Your task to perform on an android device: What's the time in New York? Image 0: 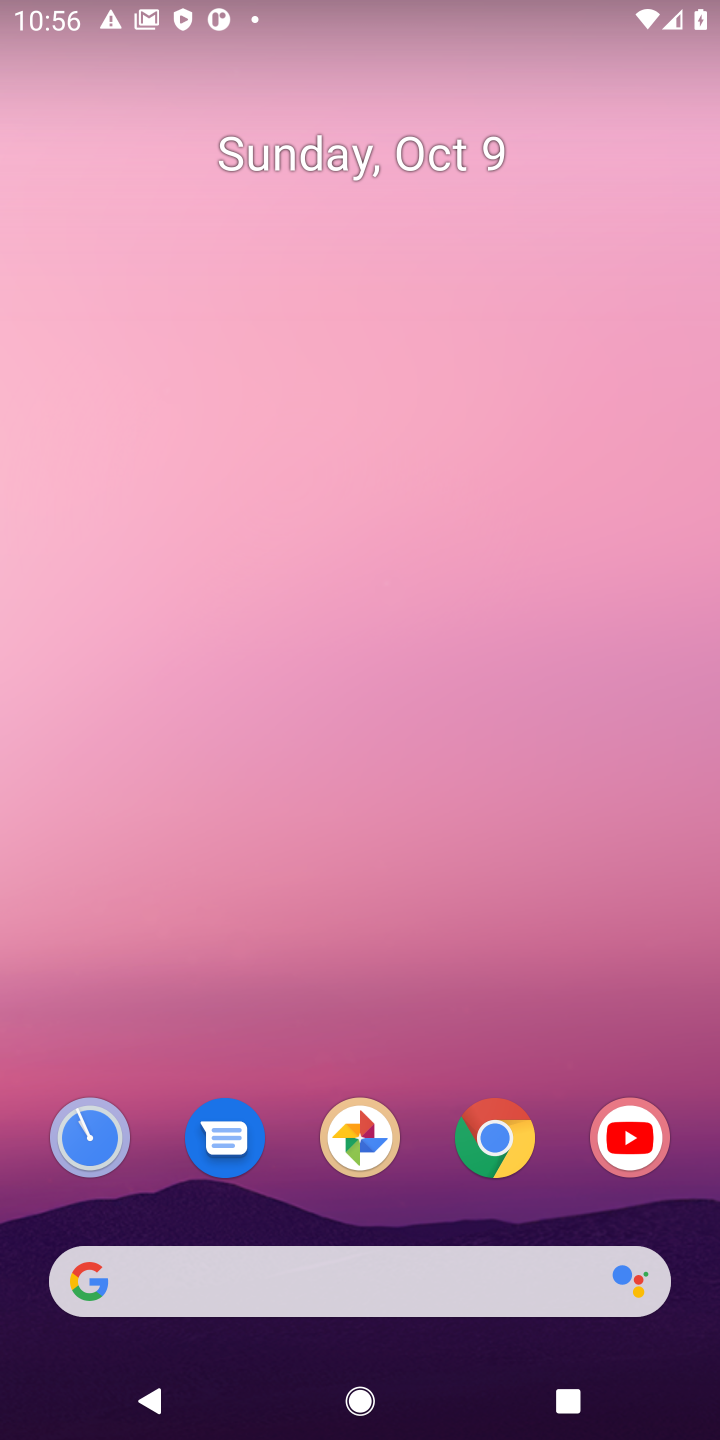
Step 0: click (493, 1156)
Your task to perform on an android device: What's the time in New York? Image 1: 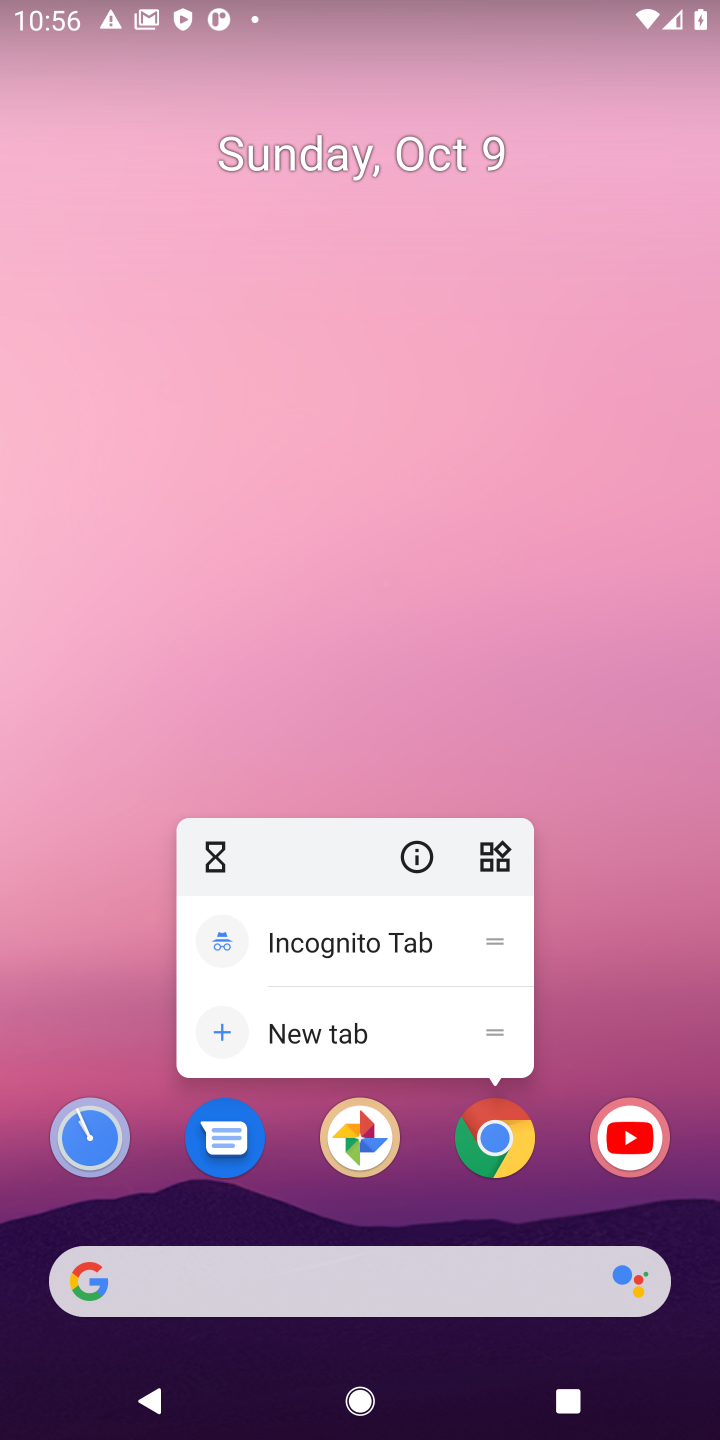
Step 1: click (493, 1156)
Your task to perform on an android device: What's the time in New York? Image 2: 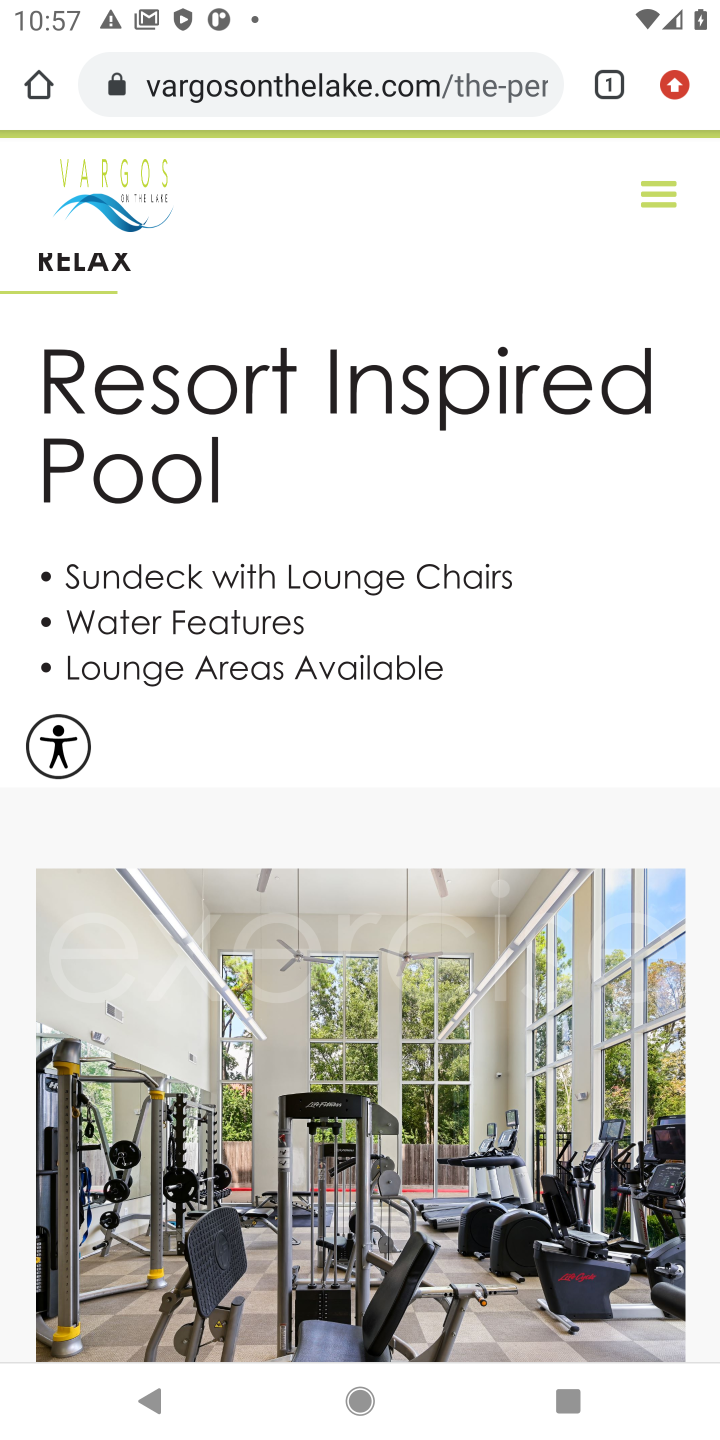
Step 2: click (324, 85)
Your task to perform on an android device: What's the time in New York? Image 3: 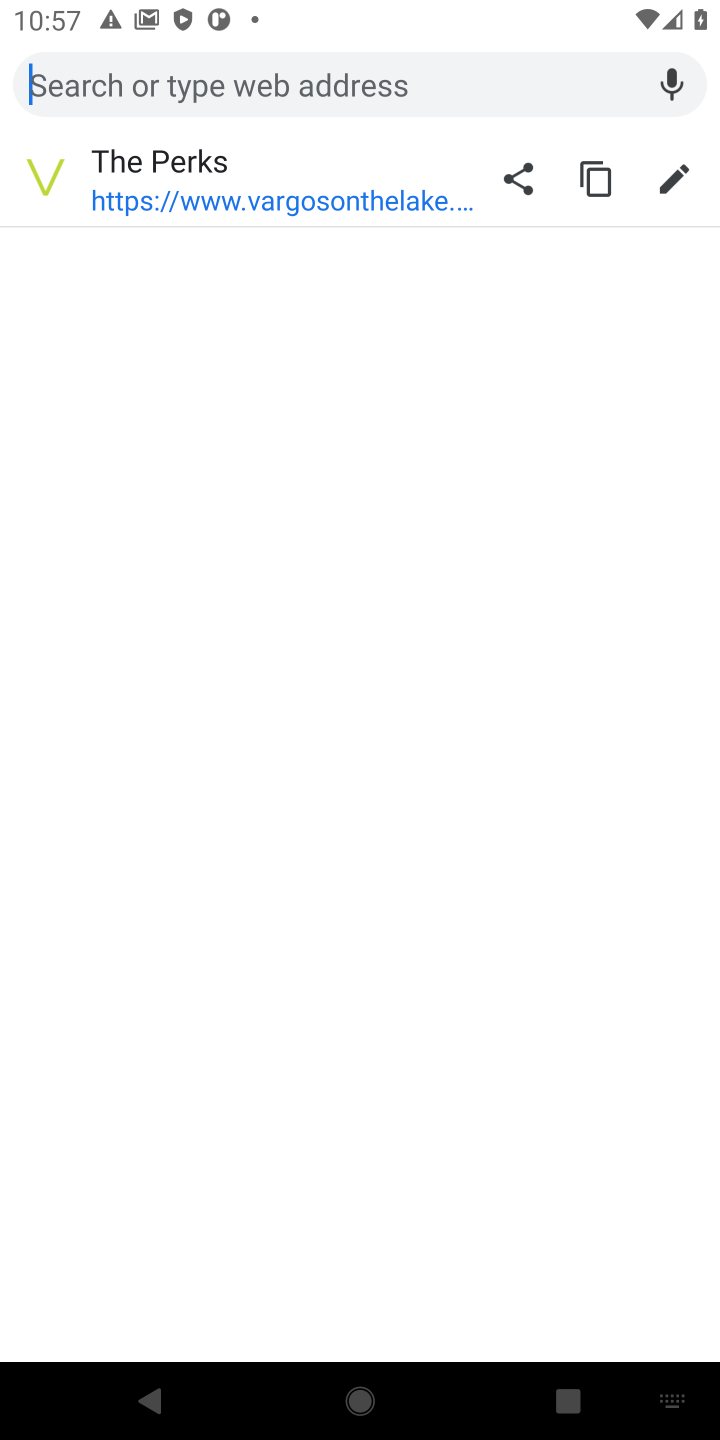
Step 3: type "What's the time in New York?"
Your task to perform on an android device: What's the time in New York? Image 4: 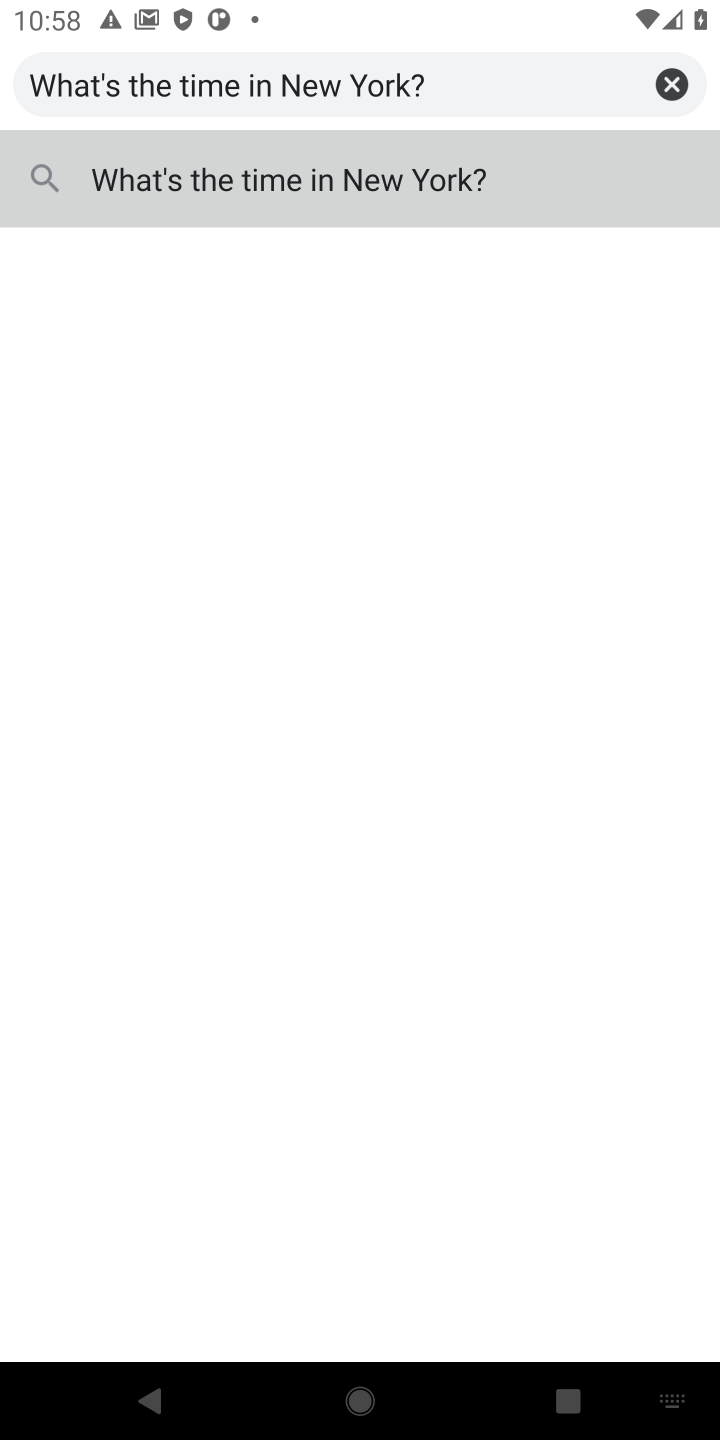
Step 4: press enter
Your task to perform on an android device: What's the time in New York? Image 5: 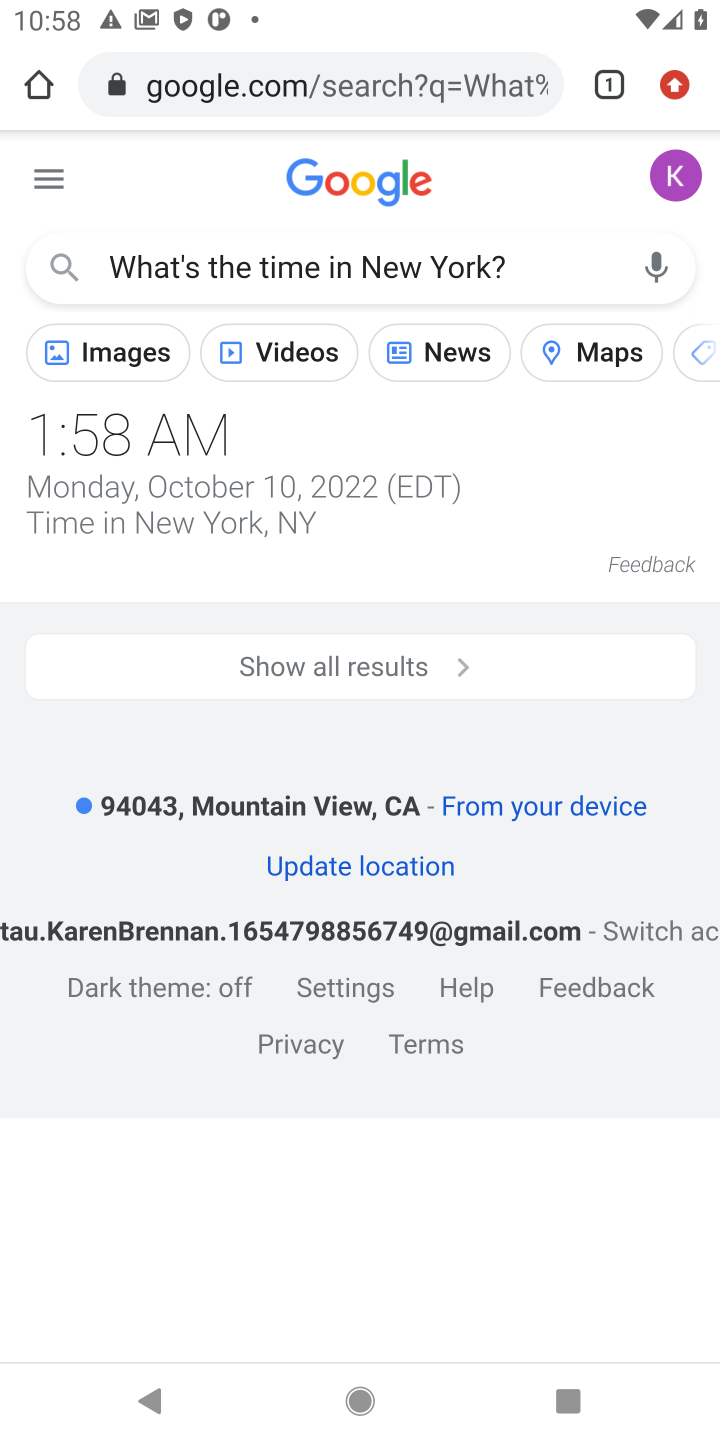
Step 5: task complete